Your task to perform on an android device: Go to notification settings Image 0: 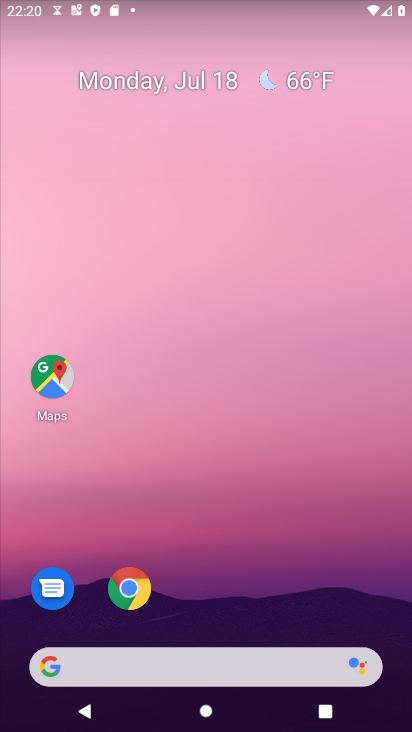
Step 0: press home button
Your task to perform on an android device: Go to notification settings Image 1: 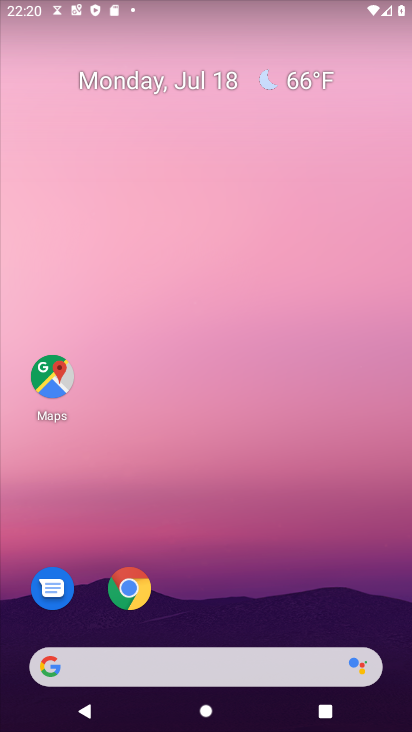
Step 1: drag from (168, 665) to (349, 157)
Your task to perform on an android device: Go to notification settings Image 2: 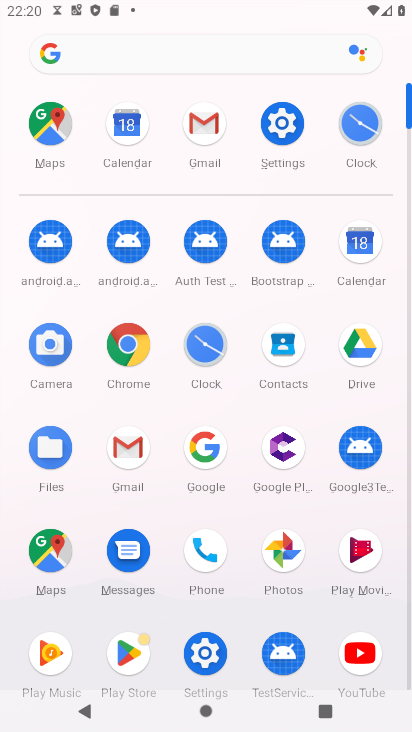
Step 2: click (286, 120)
Your task to perform on an android device: Go to notification settings Image 3: 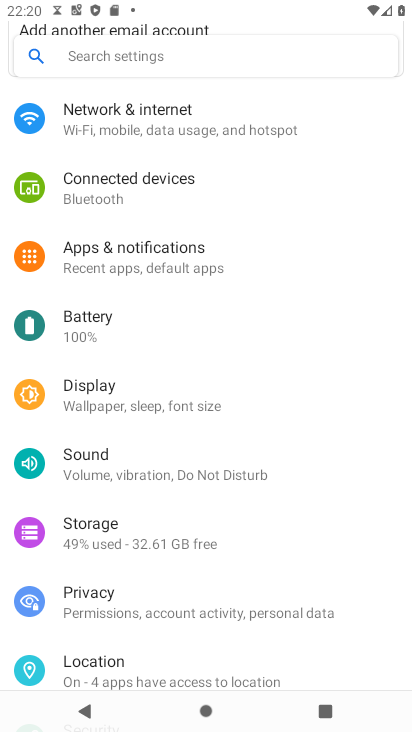
Step 3: click (180, 249)
Your task to perform on an android device: Go to notification settings Image 4: 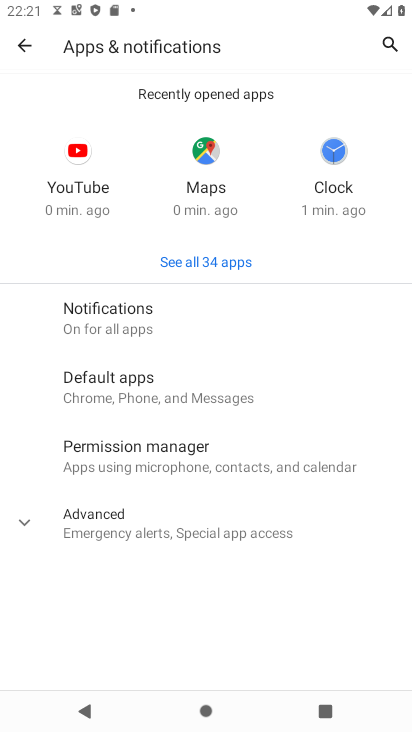
Step 4: click (110, 332)
Your task to perform on an android device: Go to notification settings Image 5: 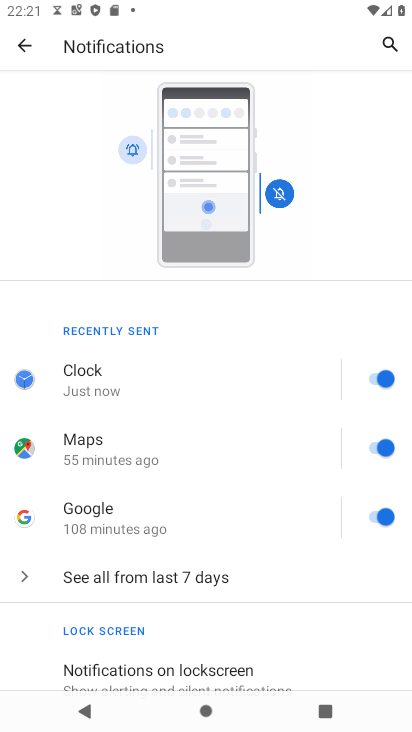
Step 5: task complete